Your task to perform on an android device: stop showing notifications on the lock screen Image 0: 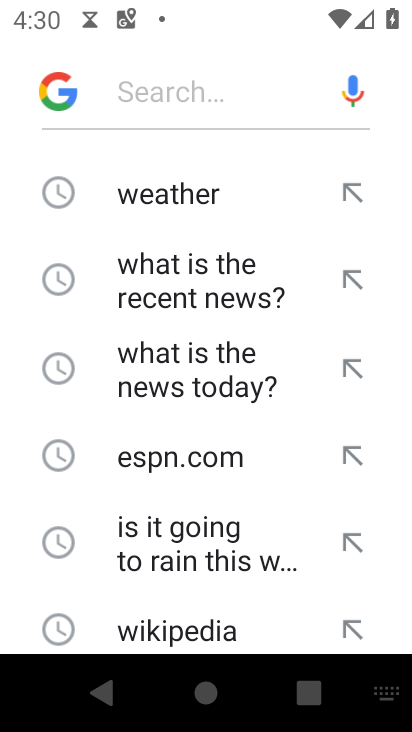
Step 0: press home button
Your task to perform on an android device: stop showing notifications on the lock screen Image 1: 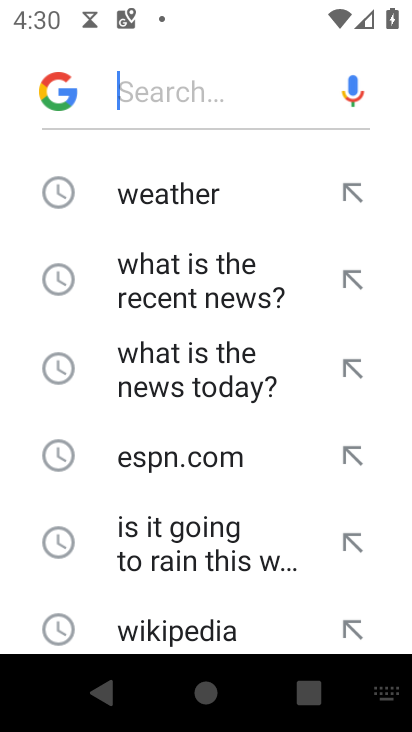
Step 1: press home button
Your task to perform on an android device: stop showing notifications on the lock screen Image 2: 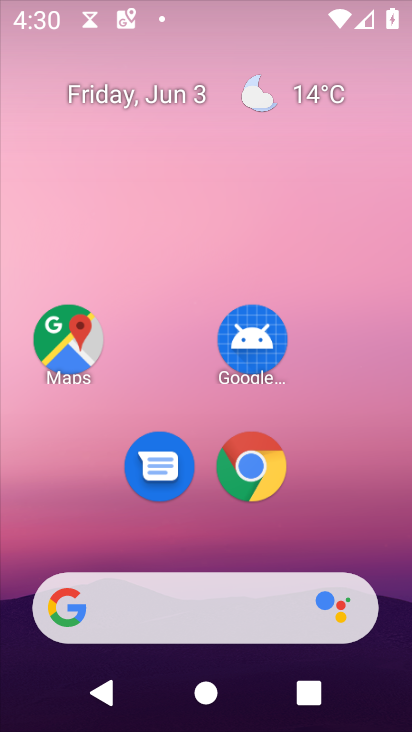
Step 2: press home button
Your task to perform on an android device: stop showing notifications on the lock screen Image 3: 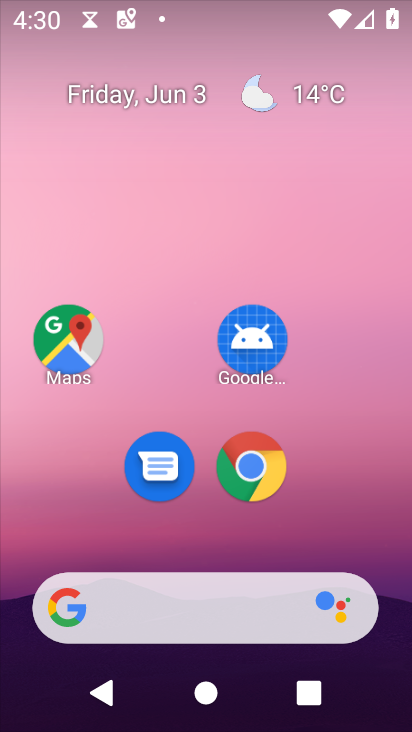
Step 3: drag from (325, 446) to (321, 306)
Your task to perform on an android device: stop showing notifications on the lock screen Image 4: 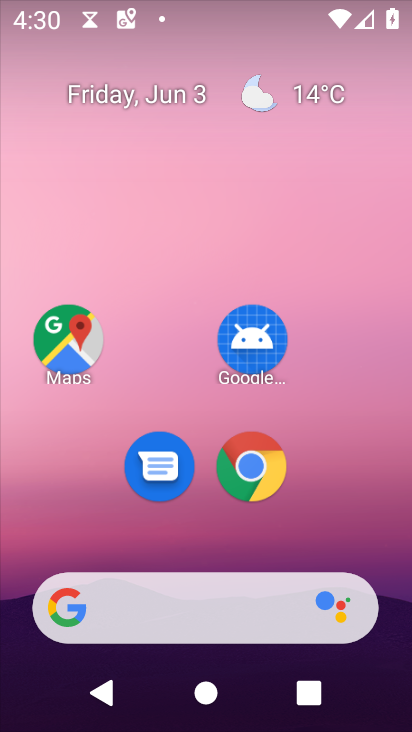
Step 4: drag from (352, 507) to (111, 21)
Your task to perform on an android device: stop showing notifications on the lock screen Image 5: 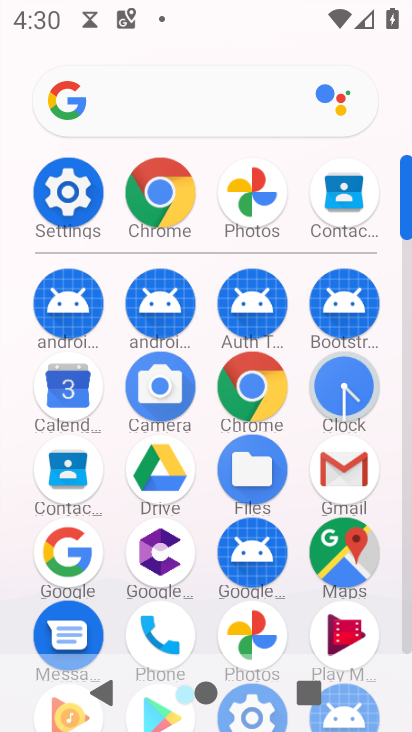
Step 5: click (74, 222)
Your task to perform on an android device: stop showing notifications on the lock screen Image 6: 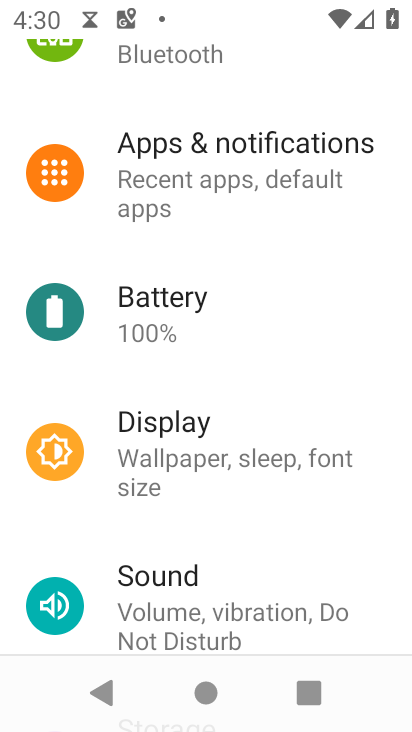
Step 6: click (180, 146)
Your task to perform on an android device: stop showing notifications on the lock screen Image 7: 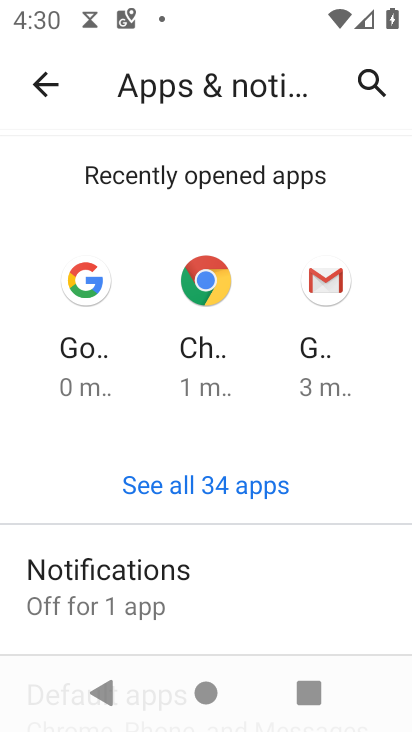
Step 7: drag from (312, 553) to (297, 451)
Your task to perform on an android device: stop showing notifications on the lock screen Image 8: 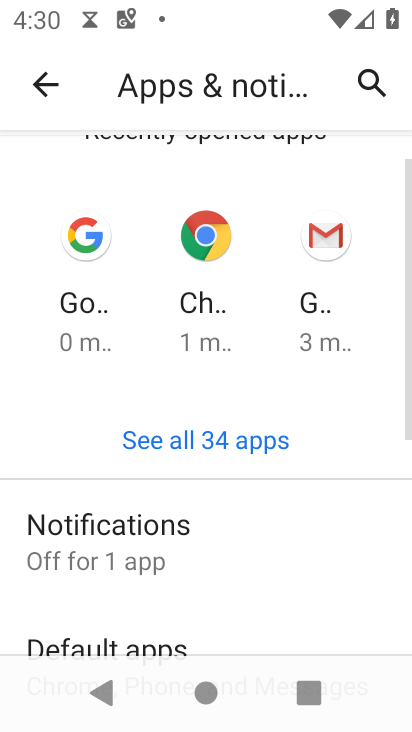
Step 8: click (379, 6)
Your task to perform on an android device: stop showing notifications on the lock screen Image 9: 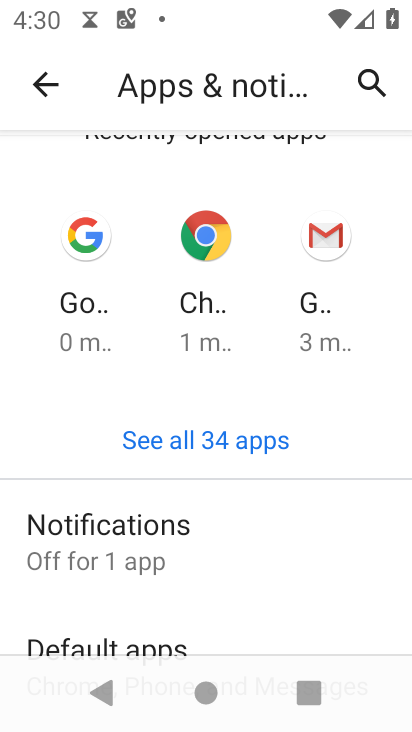
Step 9: drag from (351, 624) to (357, 367)
Your task to perform on an android device: stop showing notifications on the lock screen Image 10: 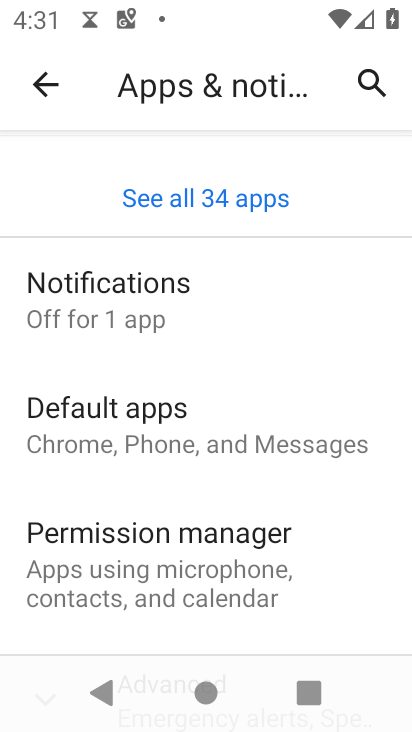
Step 10: drag from (372, 606) to (304, 214)
Your task to perform on an android device: stop showing notifications on the lock screen Image 11: 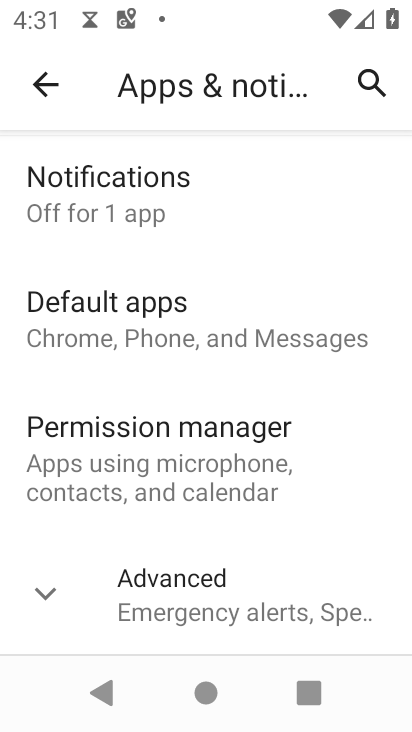
Step 11: click (237, 564)
Your task to perform on an android device: stop showing notifications on the lock screen Image 12: 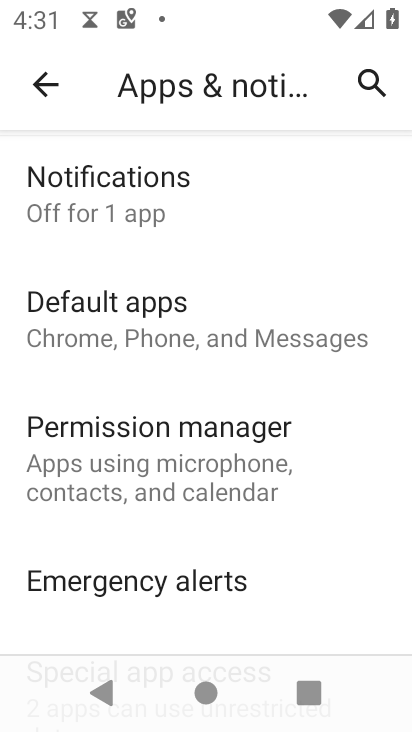
Step 12: drag from (289, 634) to (253, 290)
Your task to perform on an android device: stop showing notifications on the lock screen Image 13: 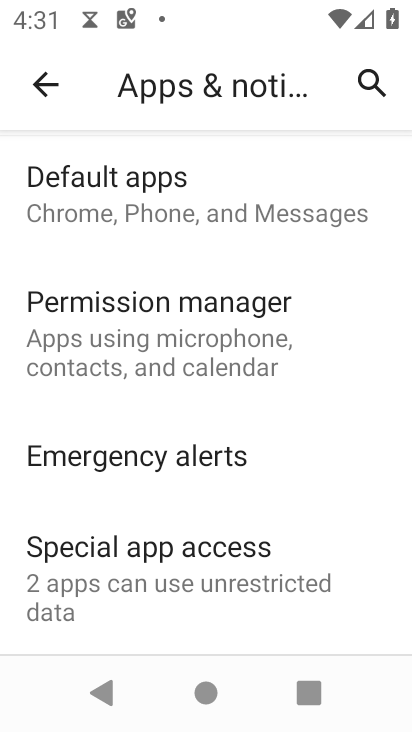
Step 13: drag from (278, 153) to (282, 488)
Your task to perform on an android device: stop showing notifications on the lock screen Image 14: 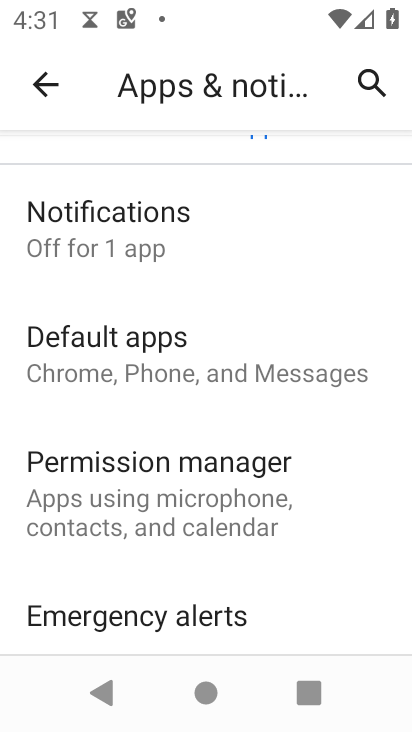
Step 14: click (287, 237)
Your task to perform on an android device: stop showing notifications on the lock screen Image 15: 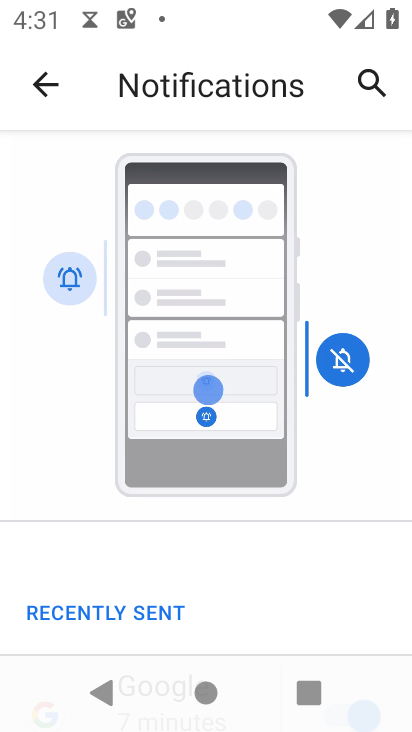
Step 15: drag from (363, 545) to (355, 239)
Your task to perform on an android device: stop showing notifications on the lock screen Image 16: 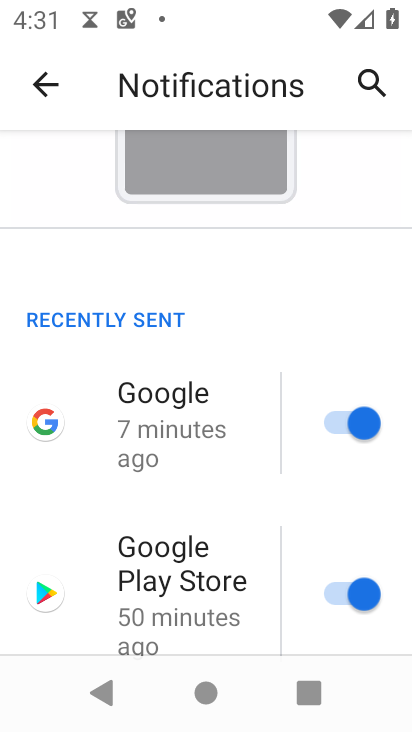
Step 16: click (260, 231)
Your task to perform on an android device: stop showing notifications on the lock screen Image 17: 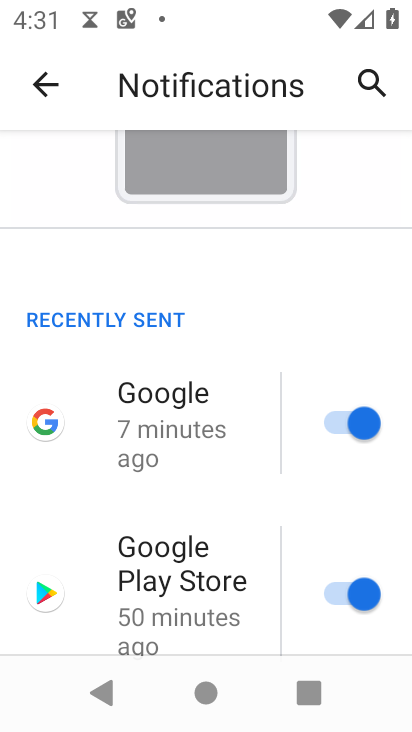
Step 17: drag from (267, 609) to (295, 189)
Your task to perform on an android device: stop showing notifications on the lock screen Image 18: 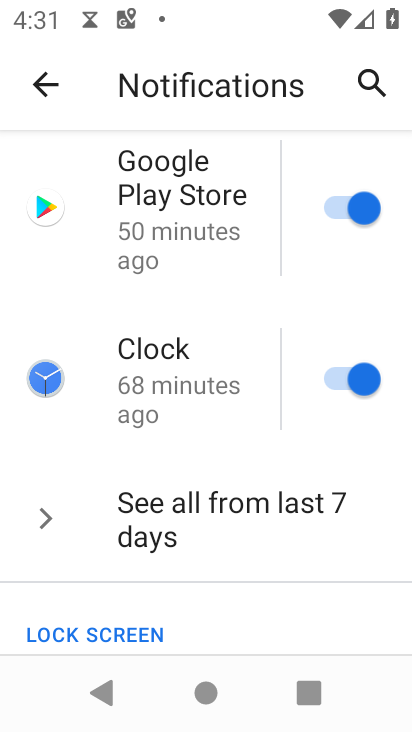
Step 18: drag from (285, 619) to (295, 355)
Your task to perform on an android device: stop showing notifications on the lock screen Image 19: 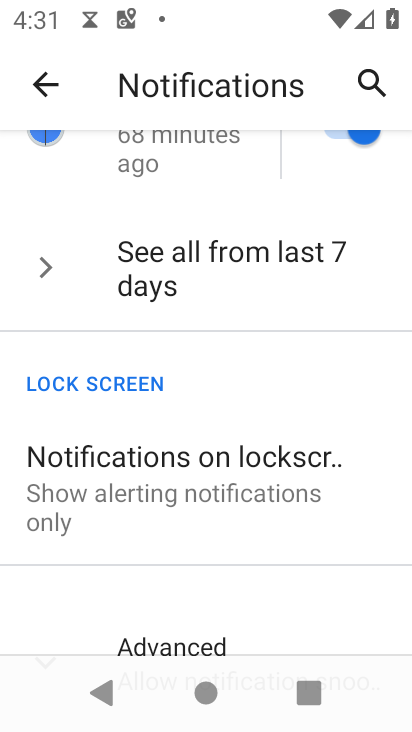
Step 19: click (228, 485)
Your task to perform on an android device: stop showing notifications on the lock screen Image 20: 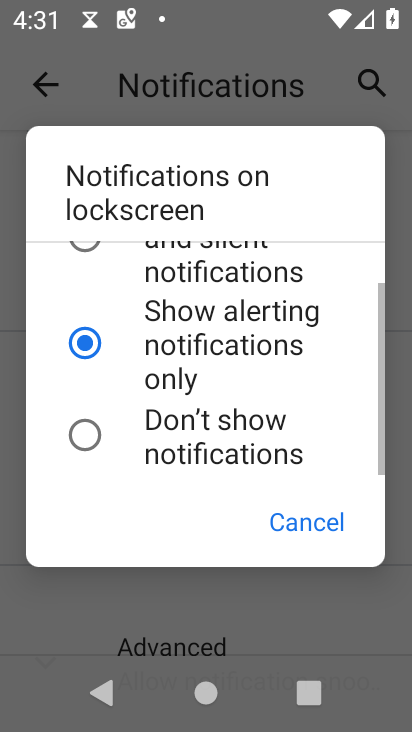
Step 20: click (232, 424)
Your task to perform on an android device: stop showing notifications on the lock screen Image 21: 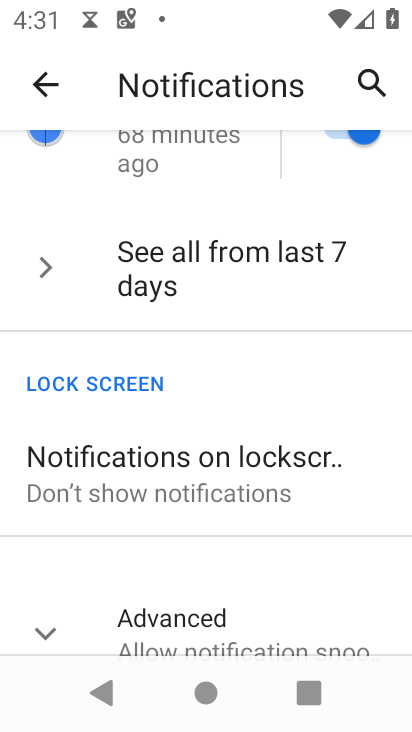
Step 21: task complete